Your task to perform on an android device: turn off notifications settings in the gmail app Image 0: 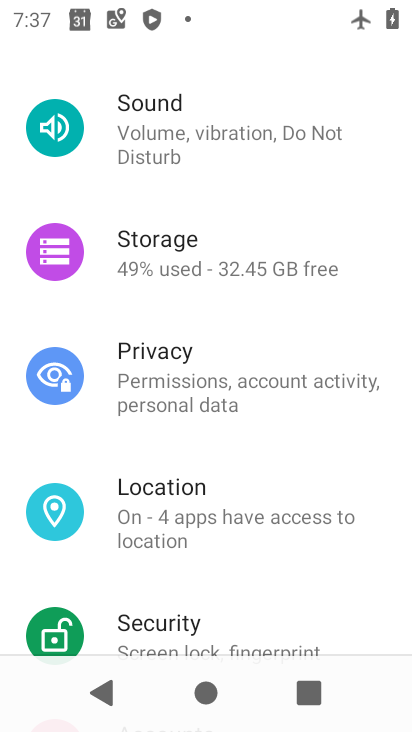
Step 0: press home button
Your task to perform on an android device: turn off notifications settings in the gmail app Image 1: 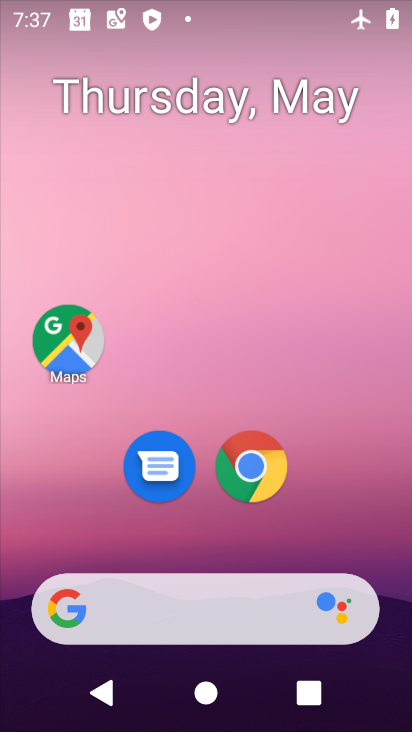
Step 1: drag from (336, 500) to (187, 97)
Your task to perform on an android device: turn off notifications settings in the gmail app Image 2: 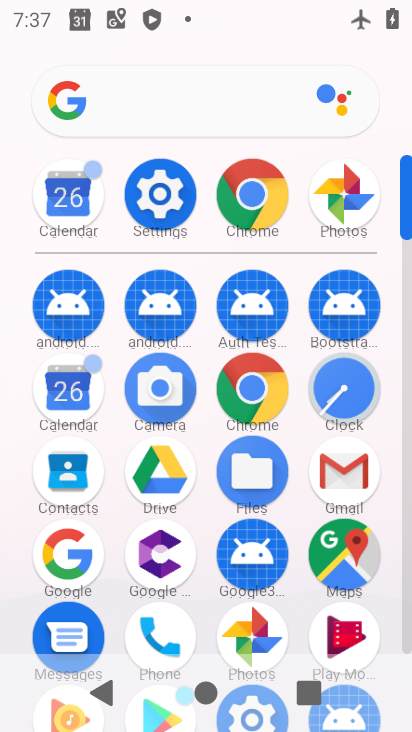
Step 2: click (336, 473)
Your task to perform on an android device: turn off notifications settings in the gmail app Image 3: 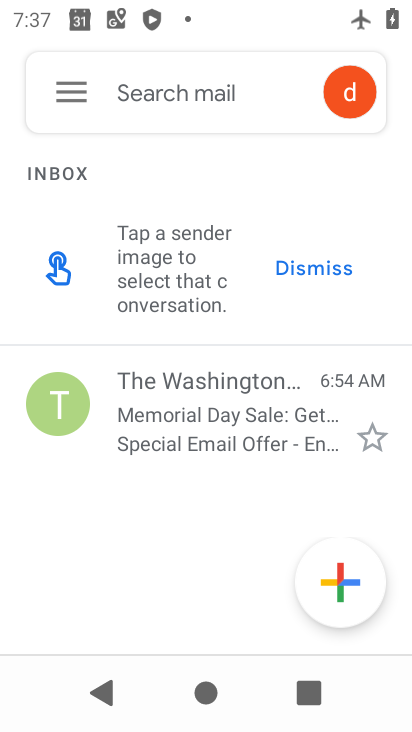
Step 3: click (74, 94)
Your task to perform on an android device: turn off notifications settings in the gmail app Image 4: 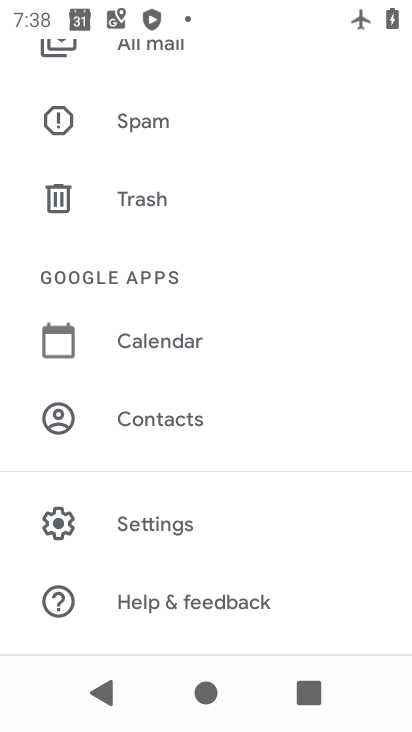
Step 4: click (145, 527)
Your task to perform on an android device: turn off notifications settings in the gmail app Image 5: 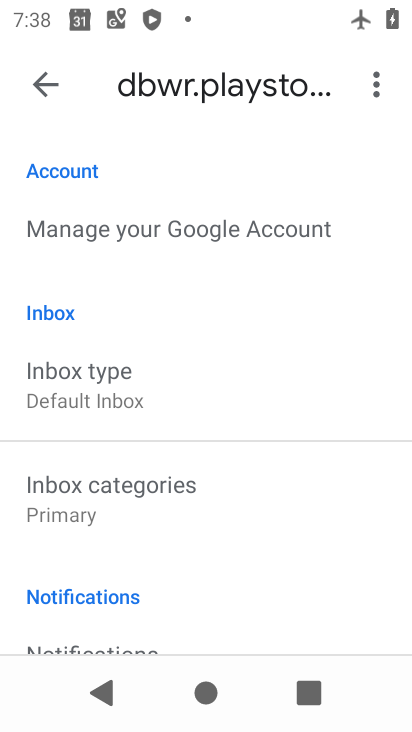
Step 5: click (49, 86)
Your task to perform on an android device: turn off notifications settings in the gmail app Image 6: 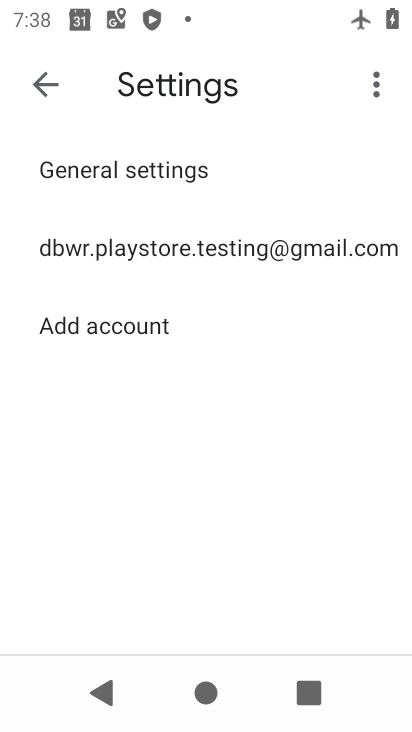
Step 6: click (107, 167)
Your task to perform on an android device: turn off notifications settings in the gmail app Image 7: 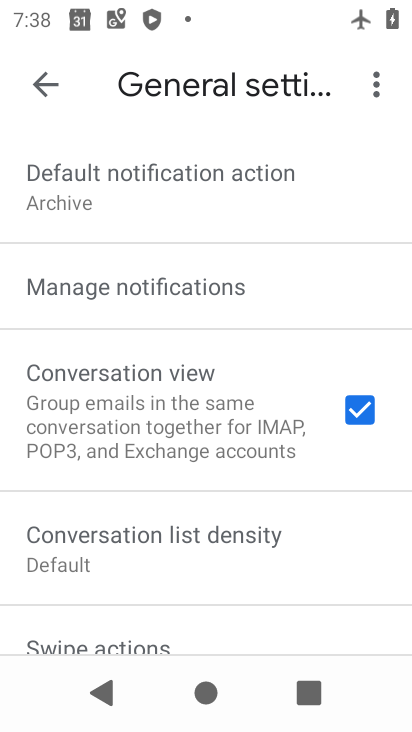
Step 7: click (129, 305)
Your task to perform on an android device: turn off notifications settings in the gmail app Image 8: 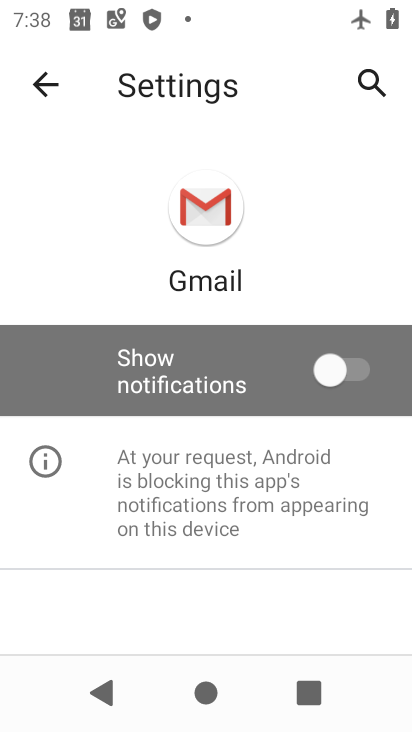
Step 8: task complete